Your task to perform on an android device: Open Youtube and go to the subscriptions tab Image 0: 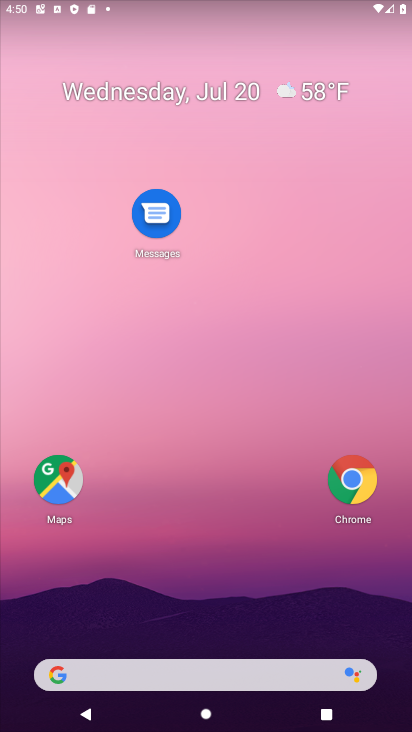
Step 0: press home button
Your task to perform on an android device: Open Youtube and go to the subscriptions tab Image 1: 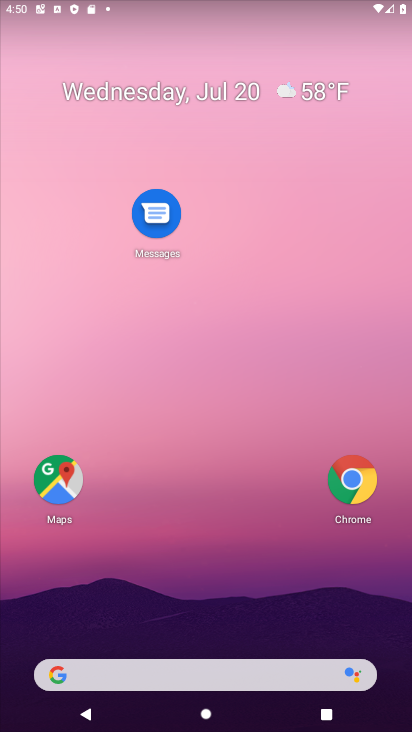
Step 1: drag from (177, 463) to (205, 258)
Your task to perform on an android device: Open Youtube and go to the subscriptions tab Image 2: 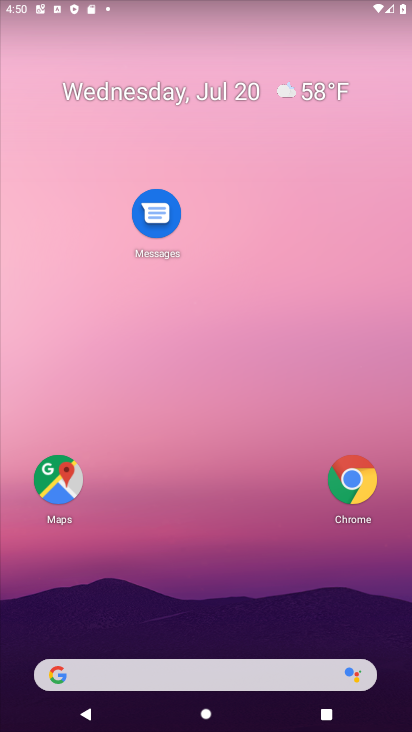
Step 2: drag from (188, 393) to (214, 142)
Your task to perform on an android device: Open Youtube and go to the subscriptions tab Image 3: 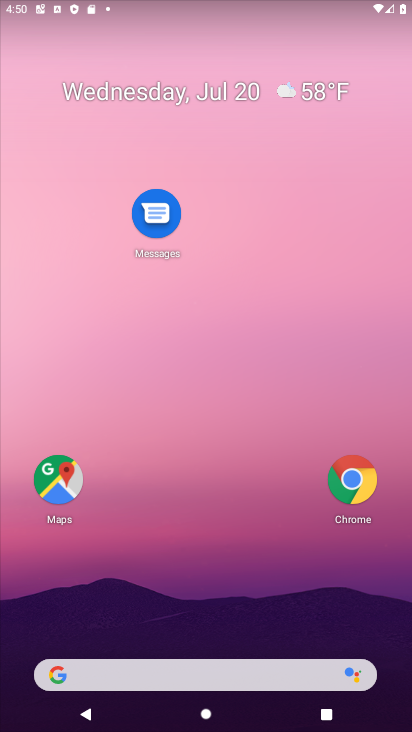
Step 3: drag from (184, 360) to (253, 32)
Your task to perform on an android device: Open Youtube and go to the subscriptions tab Image 4: 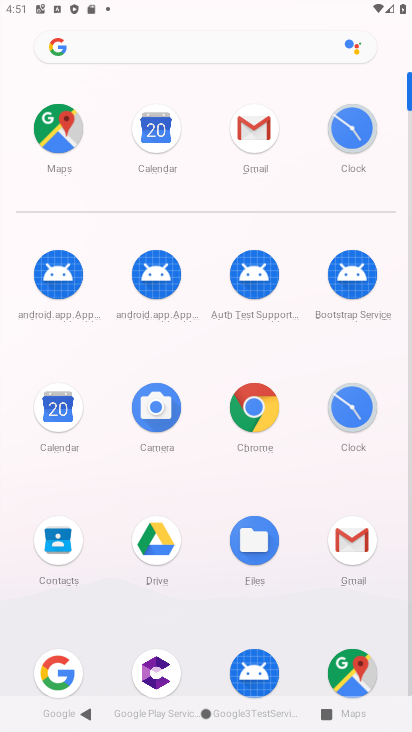
Step 4: drag from (279, 538) to (271, 149)
Your task to perform on an android device: Open Youtube and go to the subscriptions tab Image 5: 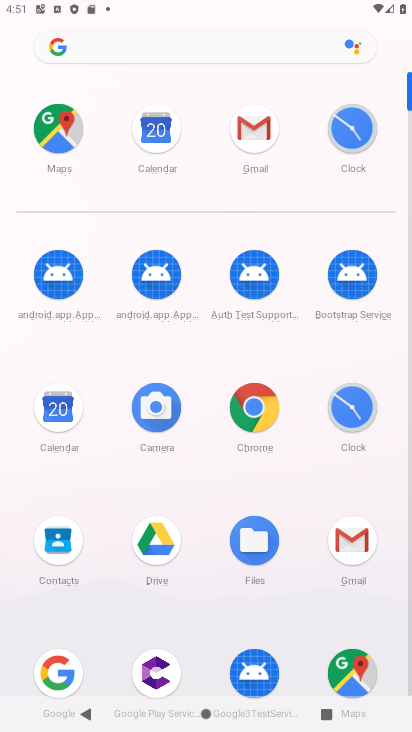
Step 5: drag from (198, 547) to (251, 227)
Your task to perform on an android device: Open Youtube and go to the subscriptions tab Image 6: 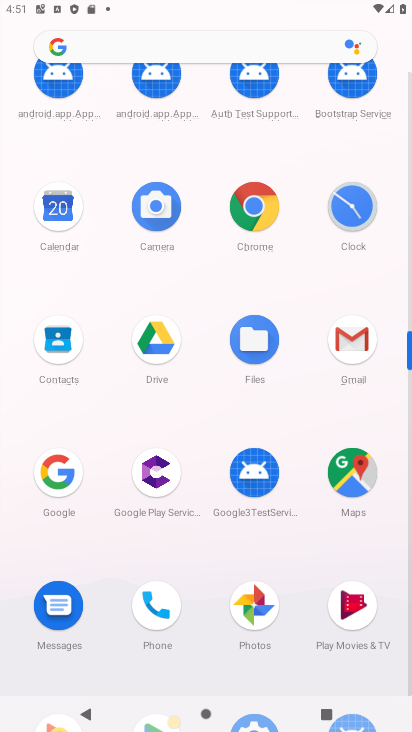
Step 6: drag from (302, 635) to (385, 163)
Your task to perform on an android device: Open Youtube and go to the subscriptions tab Image 7: 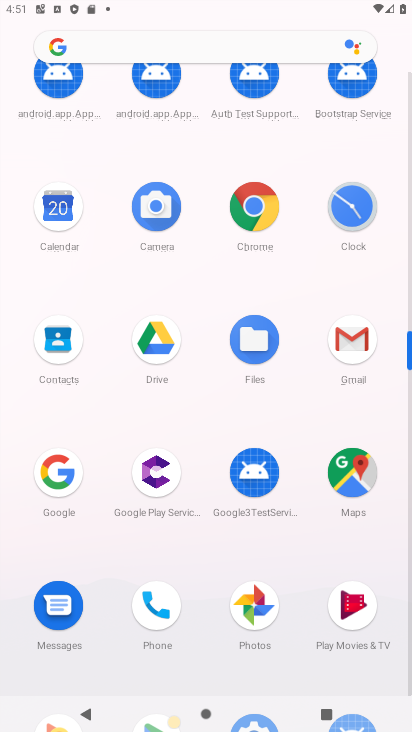
Step 7: drag from (191, 510) to (191, 354)
Your task to perform on an android device: Open Youtube and go to the subscriptions tab Image 8: 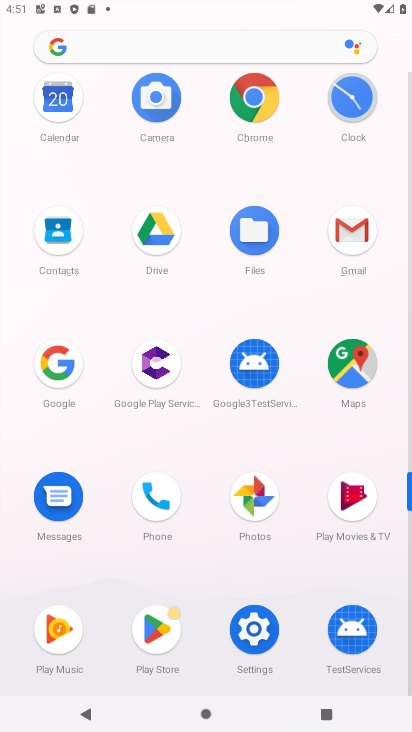
Step 8: drag from (190, 518) to (202, 206)
Your task to perform on an android device: Open Youtube and go to the subscriptions tab Image 9: 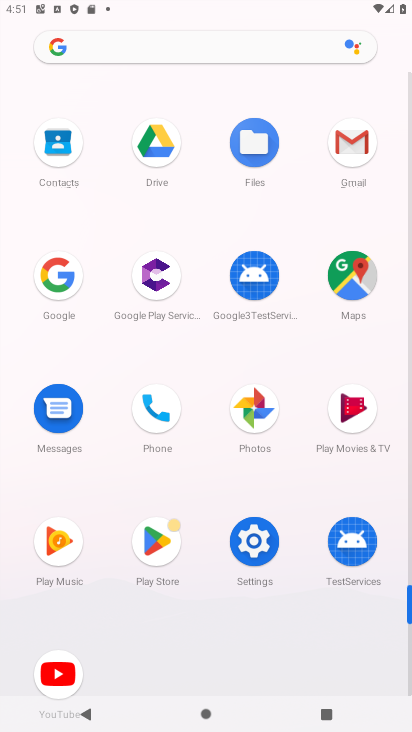
Step 9: click (53, 673)
Your task to perform on an android device: Open Youtube and go to the subscriptions tab Image 10: 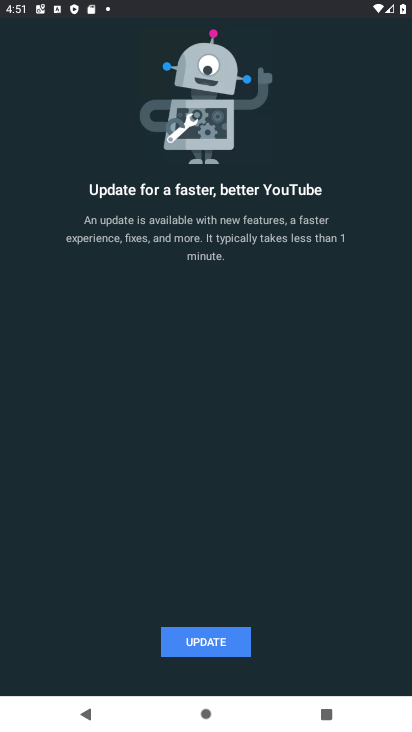
Step 10: click (188, 641)
Your task to perform on an android device: Open Youtube and go to the subscriptions tab Image 11: 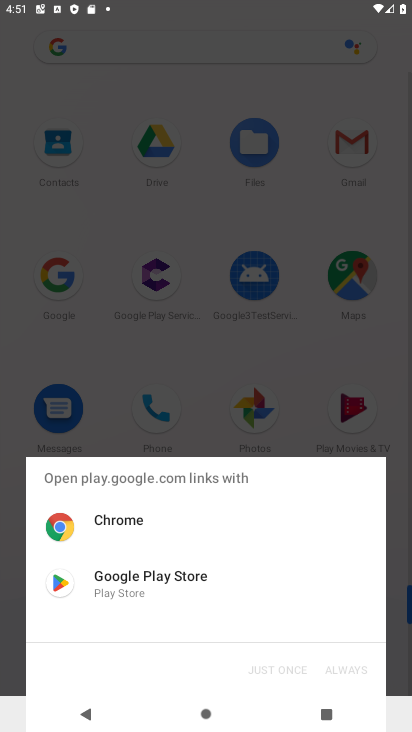
Step 11: click (155, 595)
Your task to perform on an android device: Open Youtube and go to the subscriptions tab Image 12: 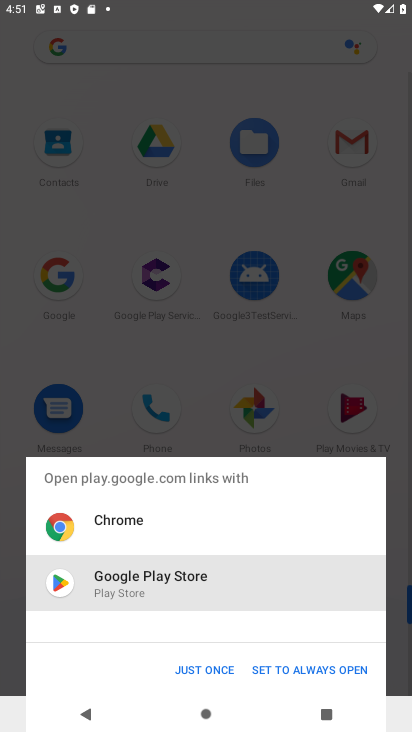
Step 12: click (290, 675)
Your task to perform on an android device: Open Youtube and go to the subscriptions tab Image 13: 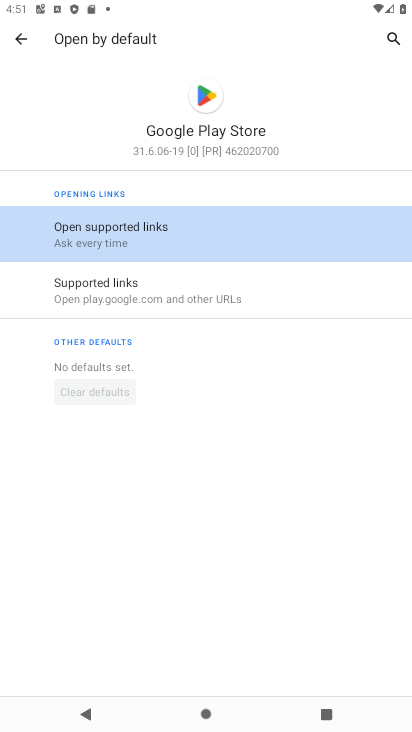
Step 13: click (96, 235)
Your task to perform on an android device: Open Youtube and go to the subscriptions tab Image 14: 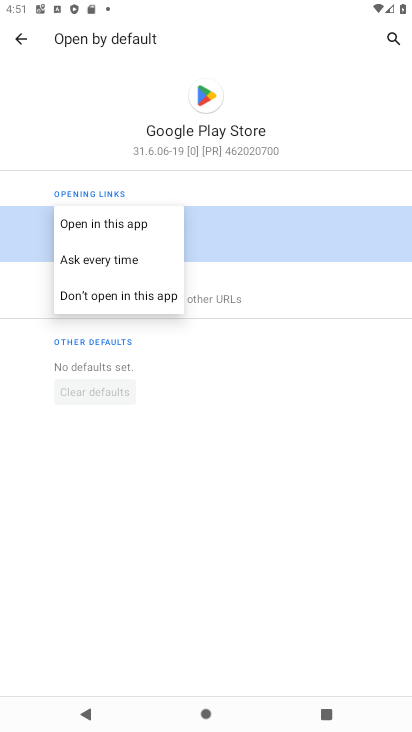
Step 14: click (100, 220)
Your task to perform on an android device: Open Youtube and go to the subscriptions tab Image 15: 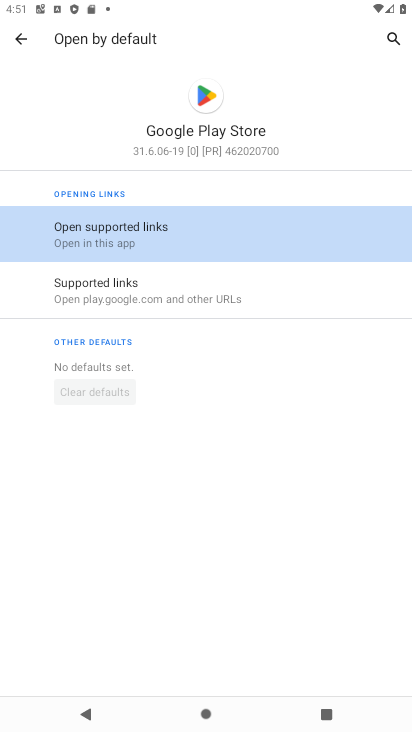
Step 15: click (19, 41)
Your task to perform on an android device: Open Youtube and go to the subscriptions tab Image 16: 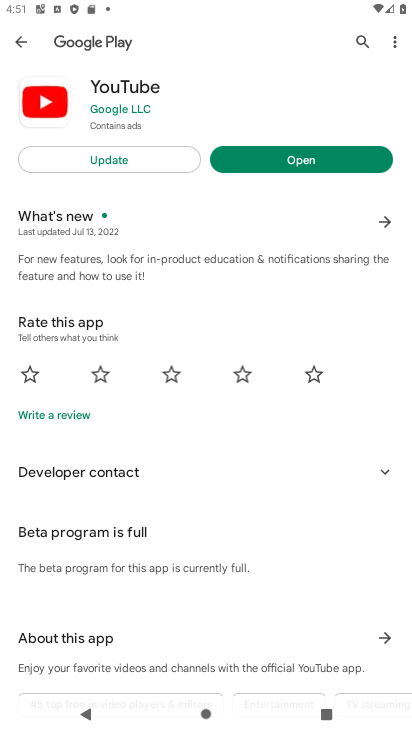
Step 16: click (273, 164)
Your task to perform on an android device: Open Youtube and go to the subscriptions tab Image 17: 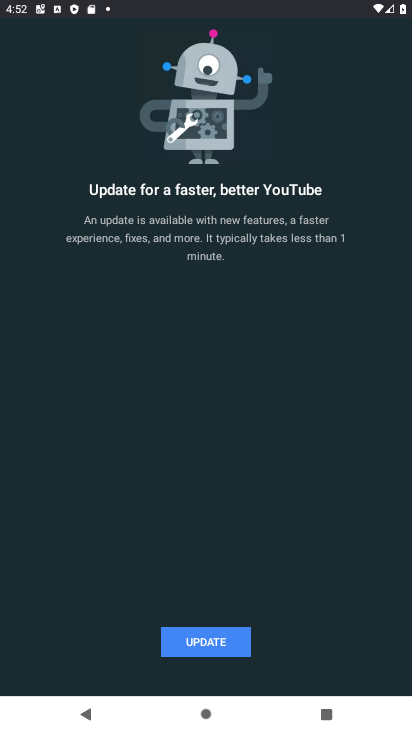
Step 17: click (221, 646)
Your task to perform on an android device: Open Youtube and go to the subscriptions tab Image 18: 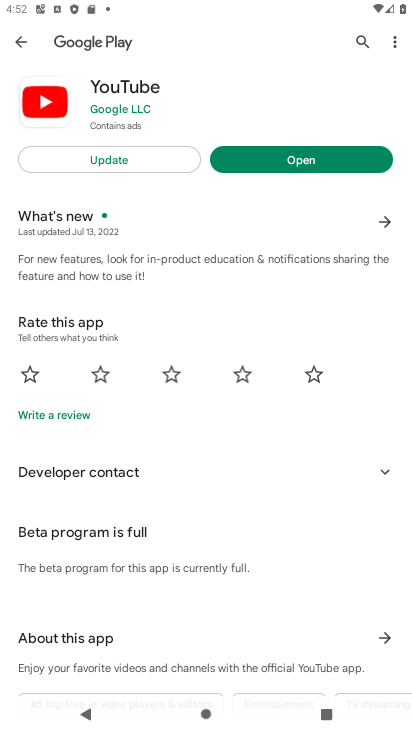
Step 18: click (158, 154)
Your task to perform on an android device: Open Youtube and go to the subscriptions tab Image 19: 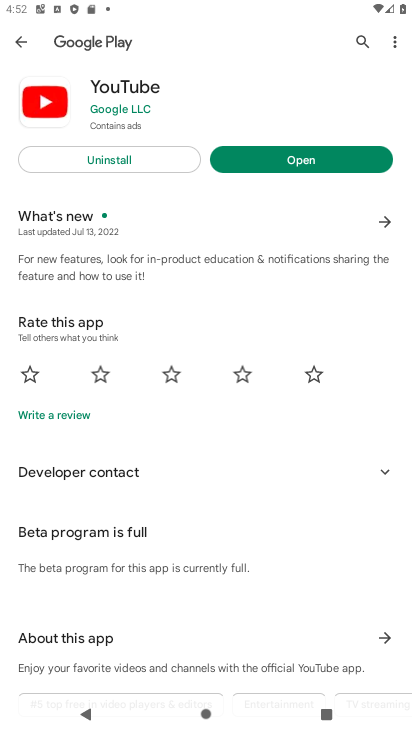
Step 19: click (293, 166)
Your task to perform on an android device: Open Youtube and go to the subscriptions tab Image 20: 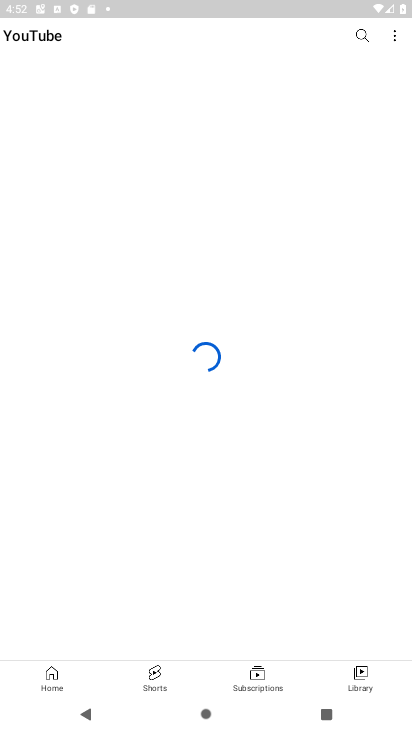
Step 20: click (263, 683)
Your task to perform on an android device: Open Youtube and go to the subscriptions tab Image 21: 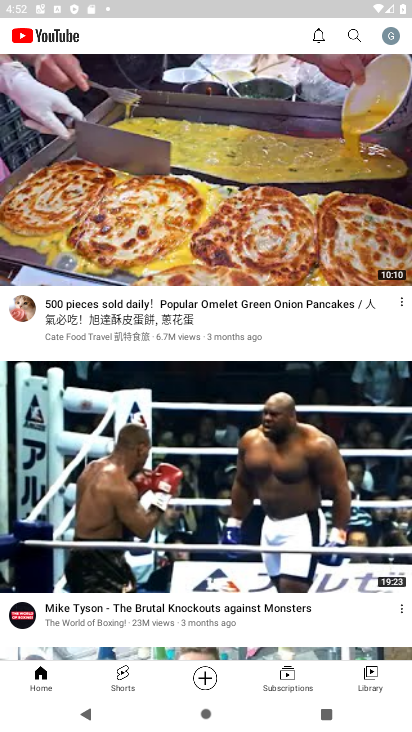
Step 21: click (286, 683)
Your task to perform on an android device: Open Youtube and go to the subscriptions tab Image 22: 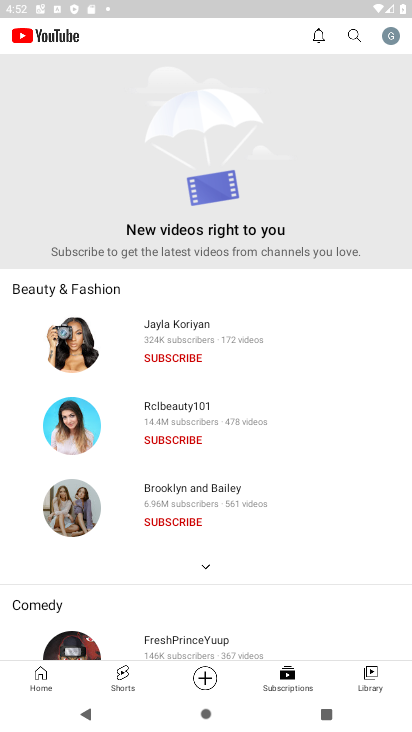
Step 22: task complete